Your task to perform on an android device: clear history in the chrome app Image 0: 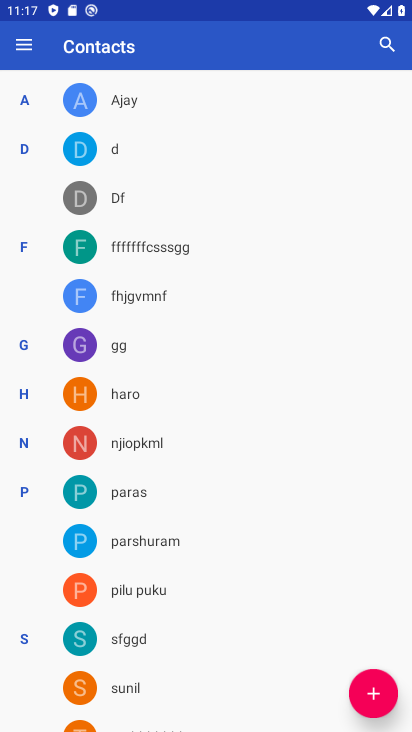
Step 0: press home button
Your task to perform on an android device: clear history in the chrome app Image 1: 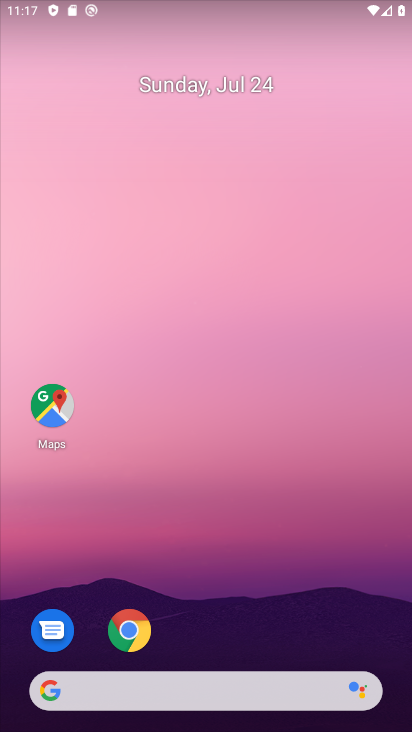
Step 1: click (131, 616)
Your task to perform on an android device: clear history in the chrome app Image 2: 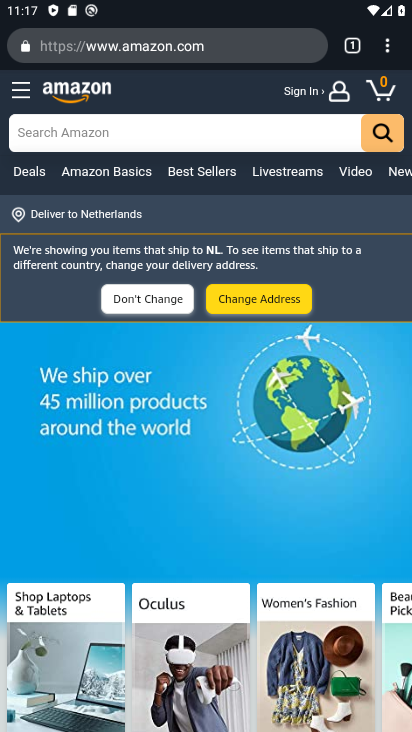
Step 2: click (388, 52)
Your task to perform on an android device: clear history in the chrome app Image 3: 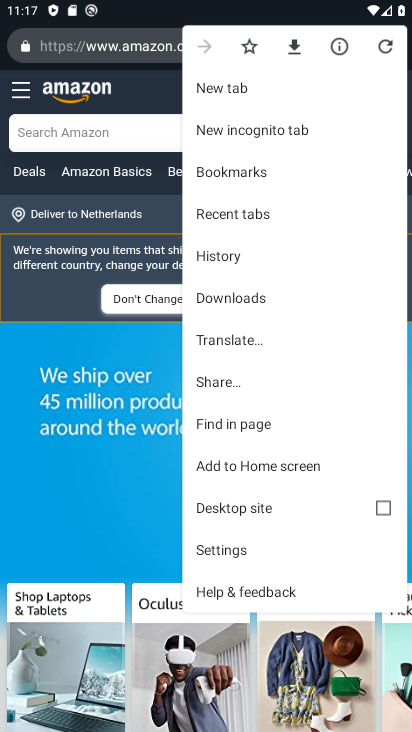
Step 3: click (220, 553)
Your task to perform on an android device: clear history in the chrome app Image 4: 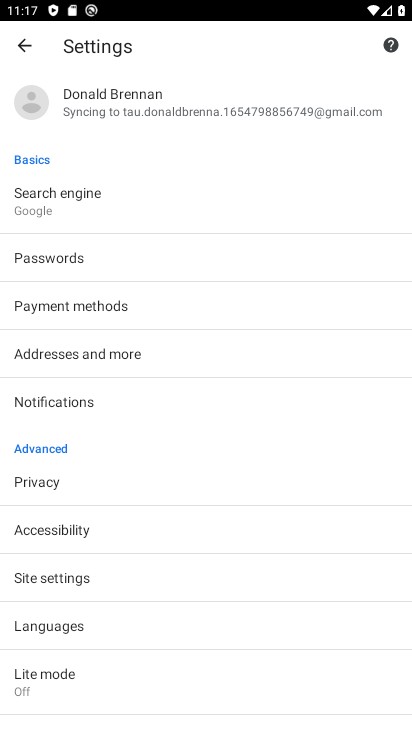
Step 4: press back button
Your task to perform on an android device: clear history in the chrome app Image 5: 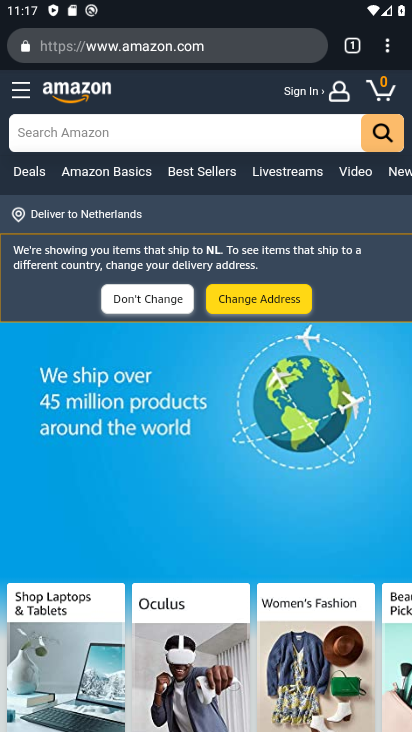
Step 5: click (386, 54)
Your task to perform on an android device: clear history in the chrome app Image 6: 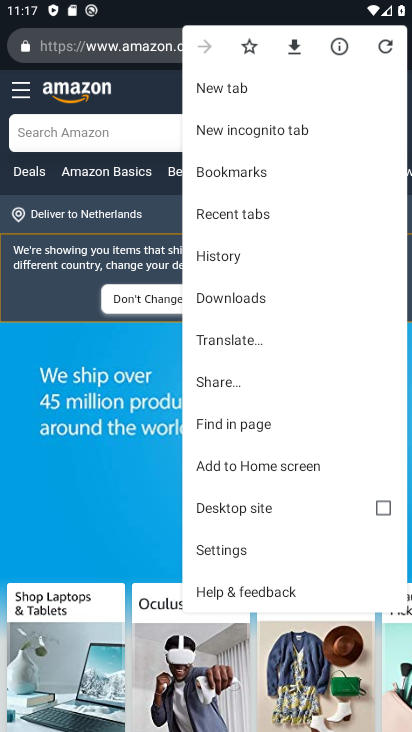
Step 6: click (212, 251)
Your task to perform on an android device: clear history in the chrome app Image 7: 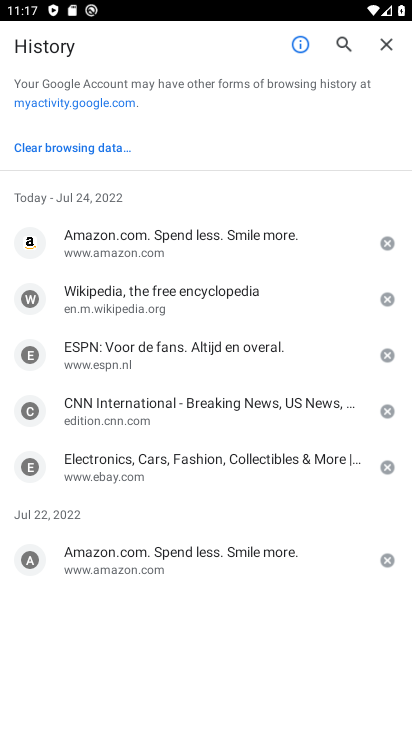
Step 7: click (68, 141)
Your task to perform on an android device: clear history in the chrome app Image 8: 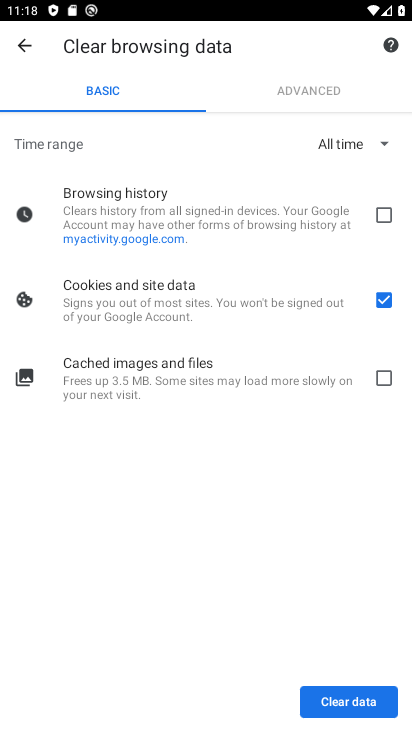
Step 8: click (378, 378)
Your task to perform on an android device: clear history in the chrome app Image 9: 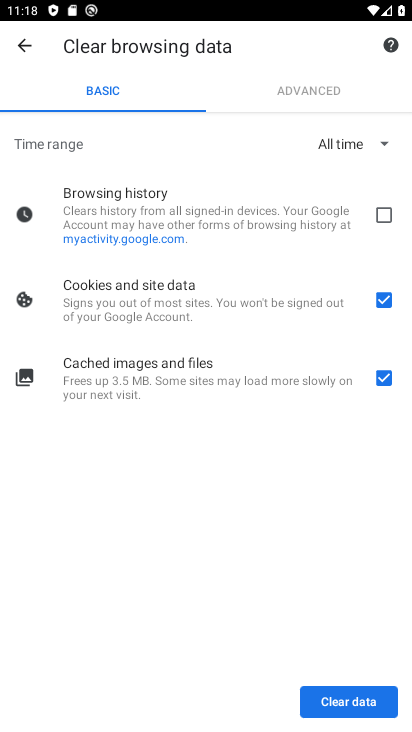
Step 9: click (381, 211)
Your task to perform on an android device: clear history in the chrome app Image 10: 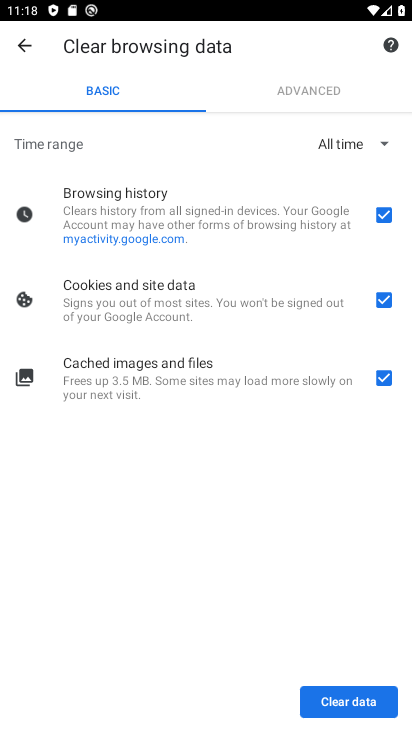
Step 10: click (352, 699)
Your task to perform on an android device: clear history in the chrome app Image 11: 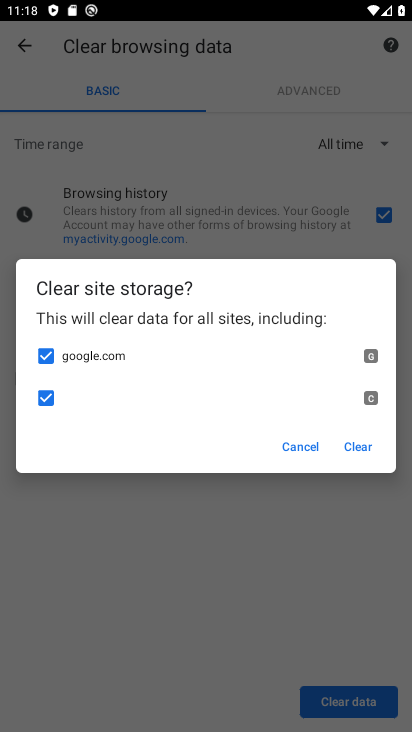
Step 11: click (368, 446)
Your task to perform on an android device: clear history in the chrome app Image 12: 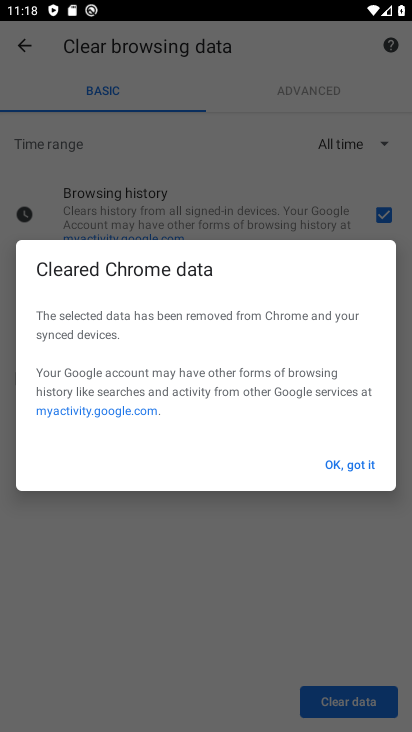
Step 12: task complete